Your task to perform on an android device: turn on the 24-hour format for clock Image 0: 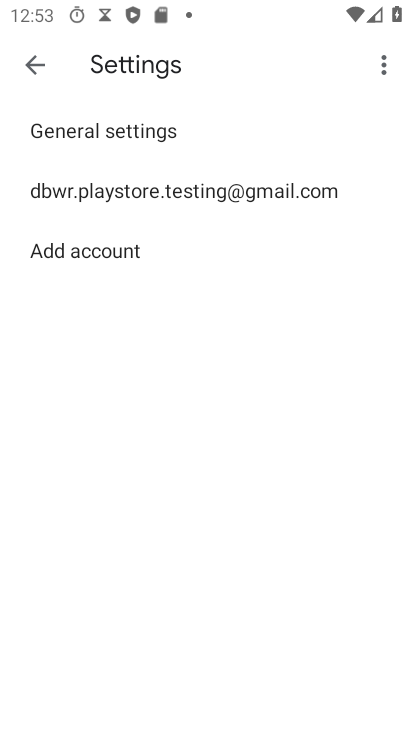
Step 0: press back button
Your task to perform on an android device: turn on the 24-hour format for clock Image 1: 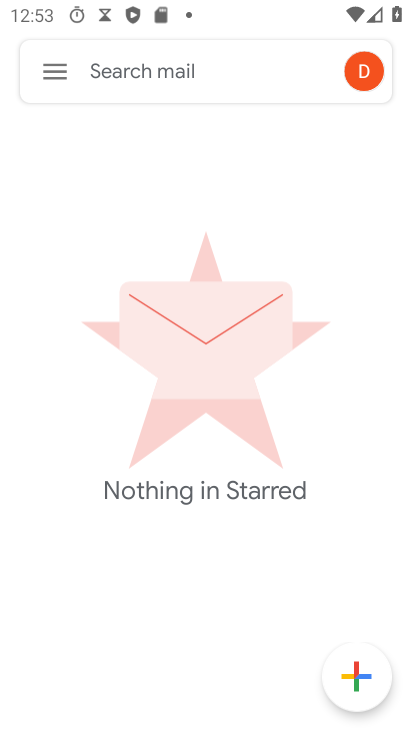
Step 1: press back button
Your task to perform on an android device: turn on the 24-hour format for clock Image 2: 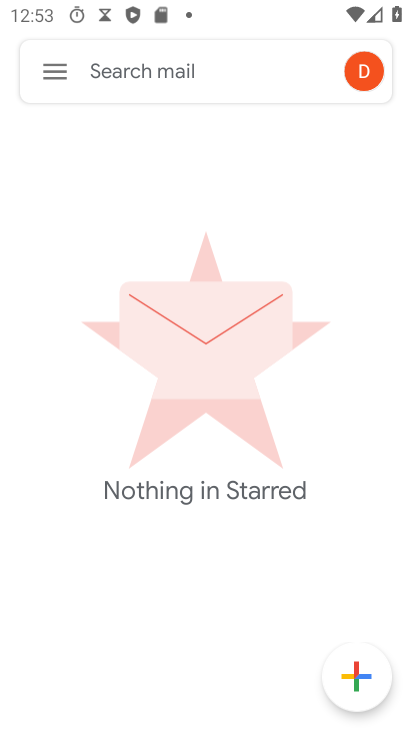
Step 2: press back button
Your task to perform on an android device: turn on the 24-hour format for clock Image 3: 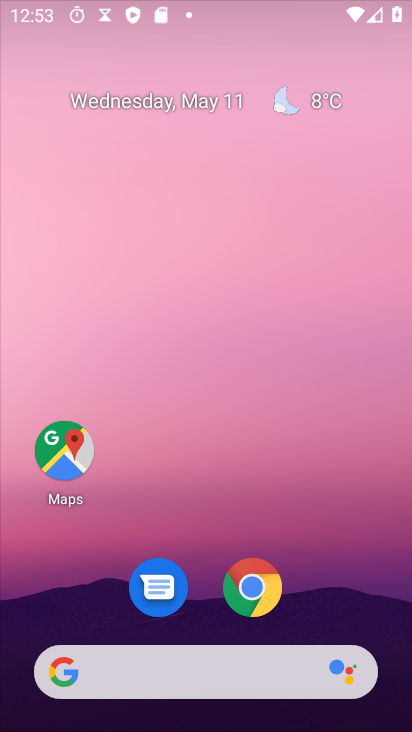
Step 3: drag from (351, 536) to (96, 3)
Your task to perform on an android device: turn on the 24-hour format for clock Image 4: 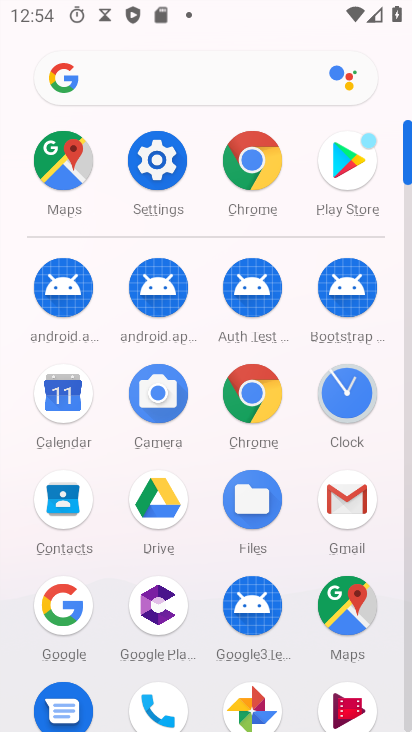
Step 4: click (344, 386)
Your task to perform on an android device: turn on the 24-hour format for clock Image 5: 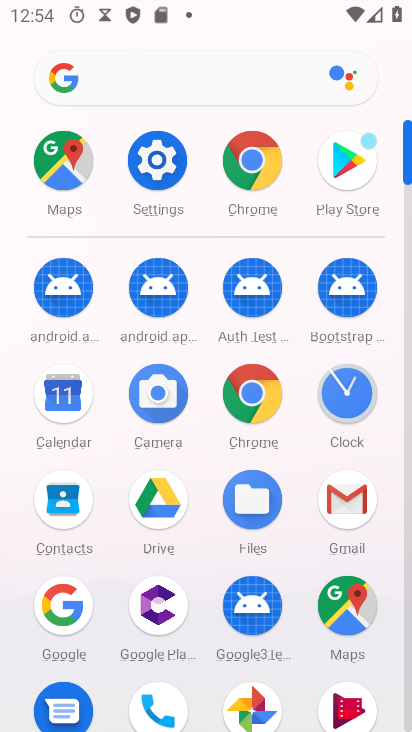
Step 5: click (345, 388)
Your task to perform on an android device: turn on the 24-hour format for clock Image 6: 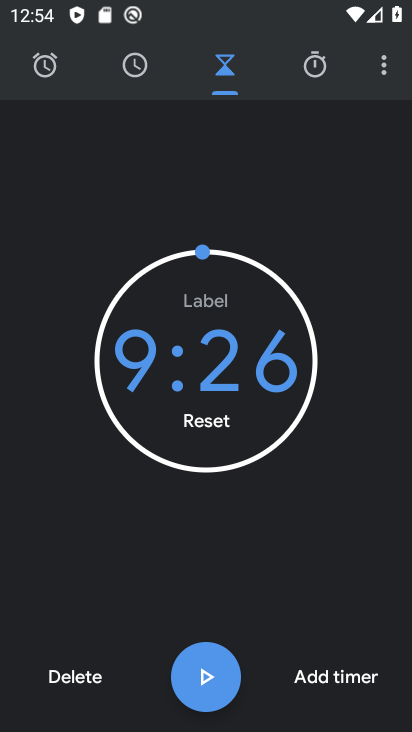
Step 6: click (384, 66)
Your task to perform on an android device: turn on the 24-hour format for clock Image 7: 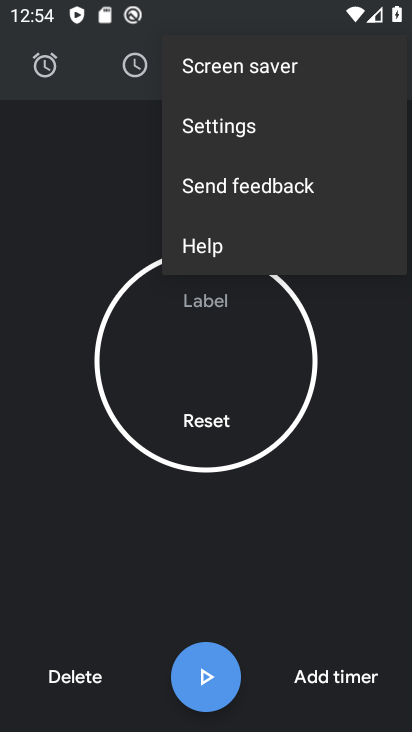
Step 7: click (222, 119)
Your task to perform on an android device: turn on the 24-hour format for clock Image 8: 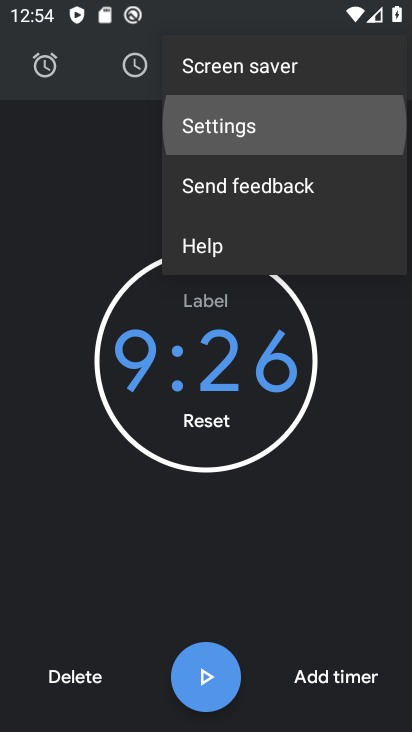
Step 8: click (224, 134)
Your task to perform on an android device: turn on the 24-hour format for clock Image 9: 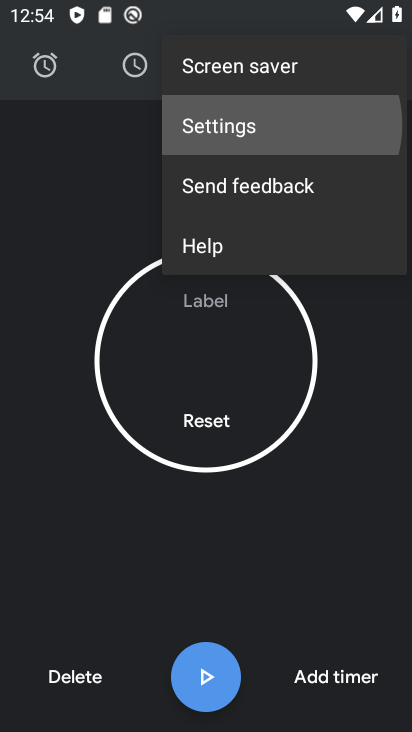
Step 9: click (222, 132)
Your task to perform on an android device: turn on the 24-hour format for clock Image 10: 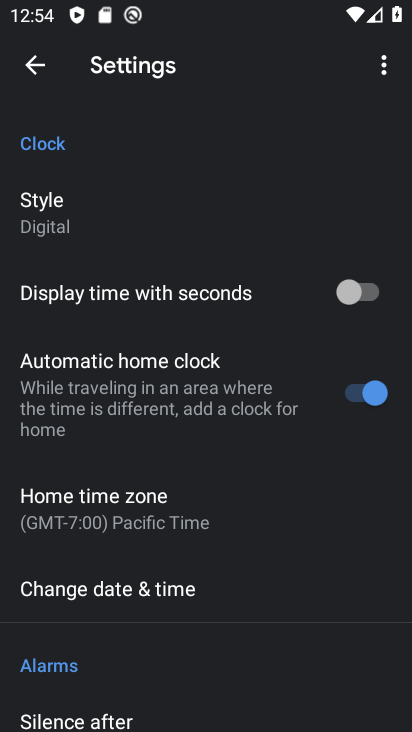
Step 10: click (83, 576)
Your task to perform on an android device: turn on the 24-hour format for clock Image 11: 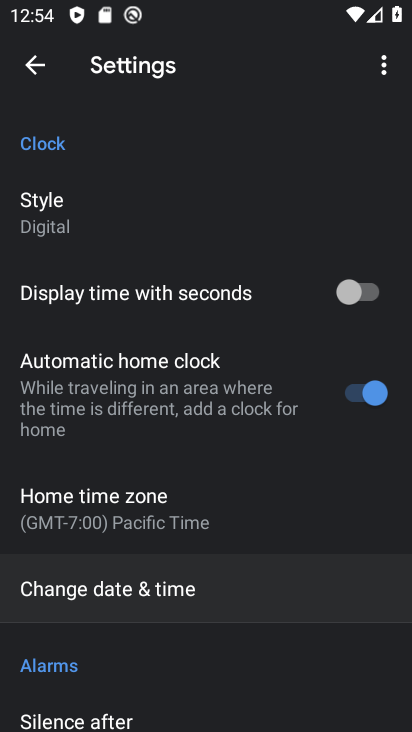
Step 11: click (89, 590)
Your task to perform on an android device: turn on the 24-hour format for clock Image 12: 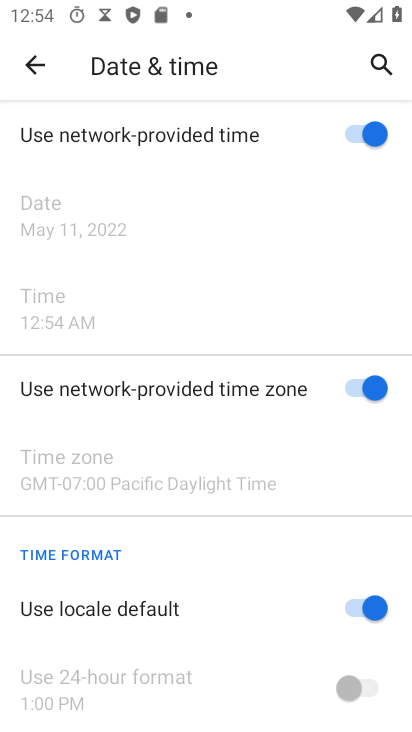
Step 12: drag from (210, 614) to (152, 182)
Your task to perform on an android device: turn on the 24-hour format for clock Image 13: 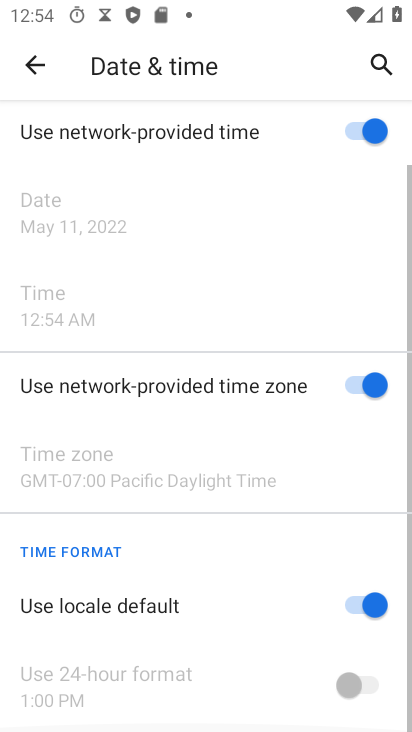
Step 13: drag from (257, 479) to (209, 16)
Your task to perform on an android device: turn on the 24-hour format for clock Image 14: 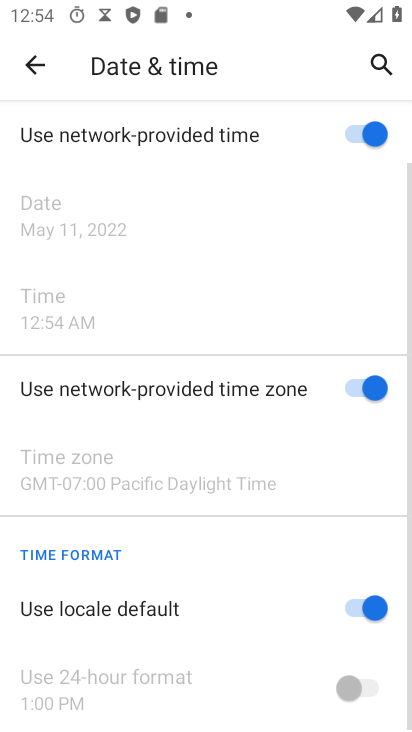
Step 14: click (374, 599)
Your task to perform on an android device: turn on the 24-hour format for clock Image 15: 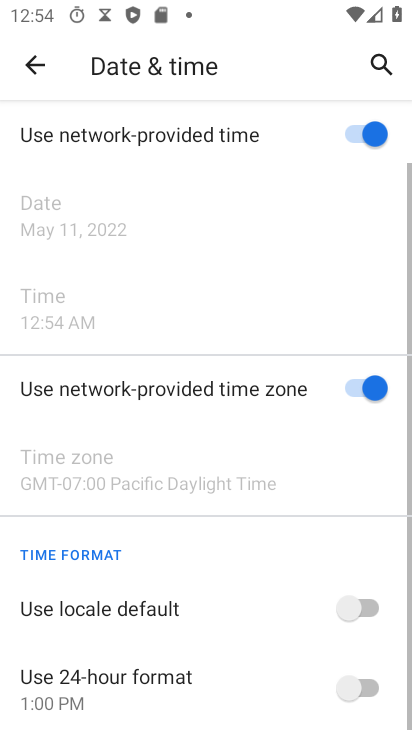
Step 15: click (351, 691)
Your task to perform on an android device: turn on the 24-hour format for clock Image 16: 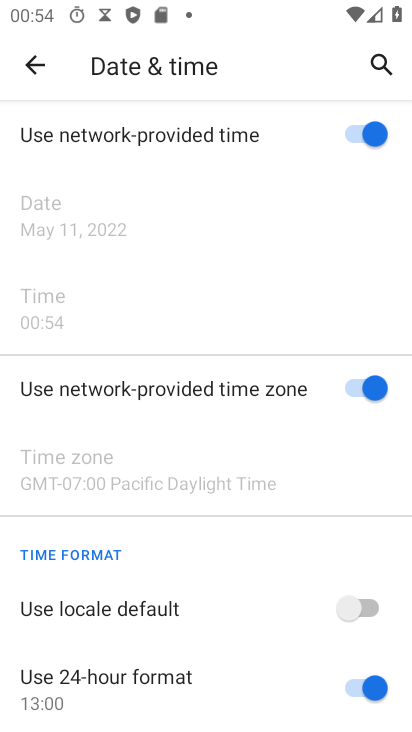
Step 16: task complete